Your task to perform on an android device: Go to eBay Image 0: 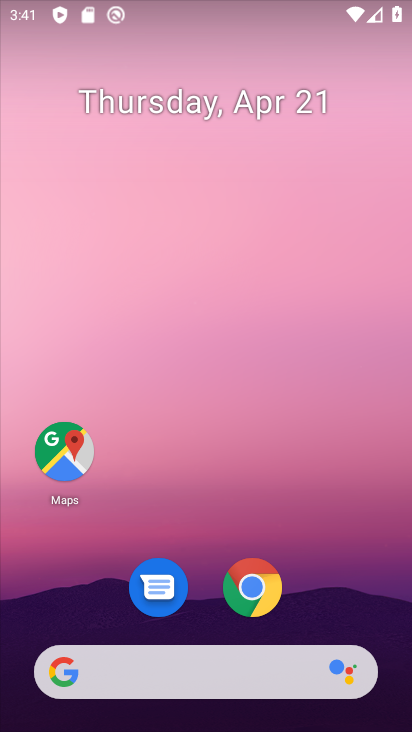
Step 0: click (246, 591)
Your task to perform on an android device: Go to eBay Image 1: 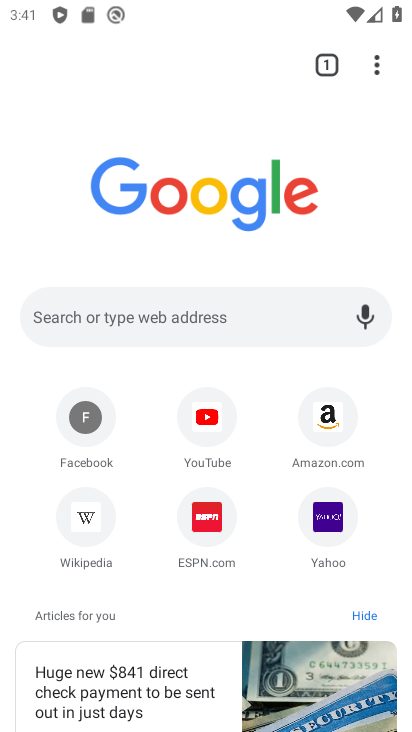
Step 1: click (147, 314)
Your task to perform on an android device: Go to eBay Image 2: 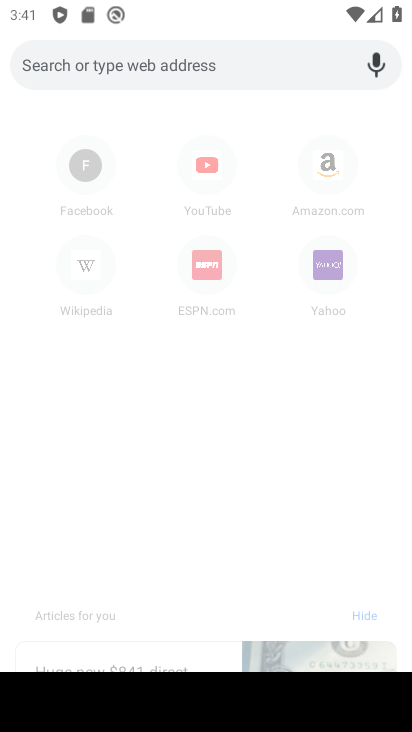
Step 2: type "ebay"
Your task to perform on an android device: Go to eBay Image 3: 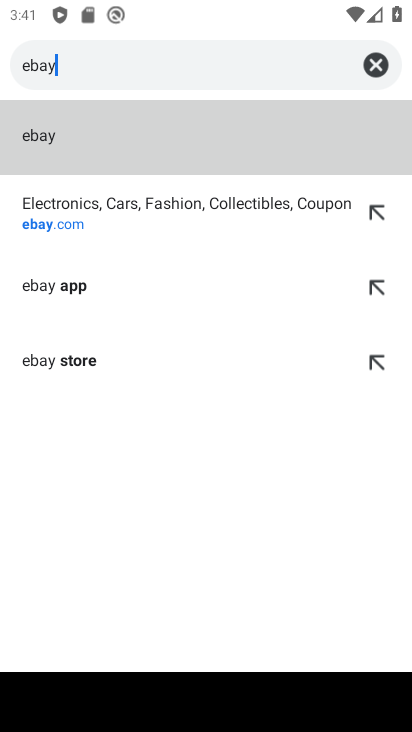
Step 3: click (68, 209)
Your task to perform on an android device: Go to eBay Image 4: 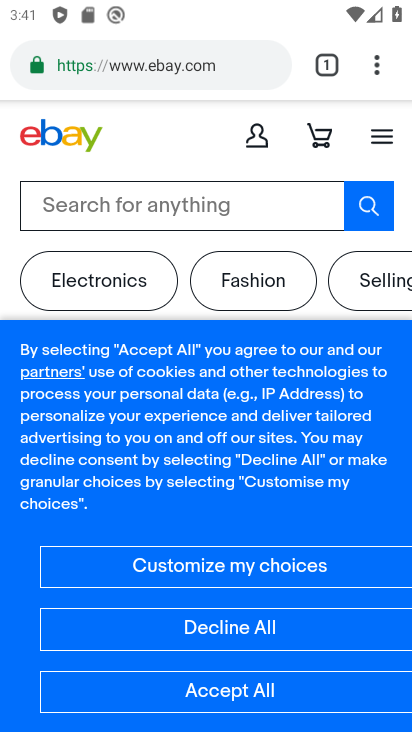
Step 4: task complete